Your task to perform on an android device: read, delete, or share a saved page in the chrome app Image 0: 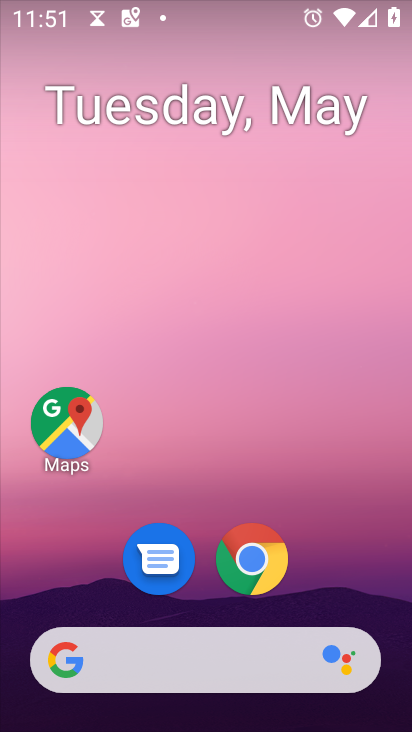
Step 0: drag from (308, 594) to (339, 22)
Your task to perform on an android device: read, delete, or share a saved page in the chrome app Image 1: 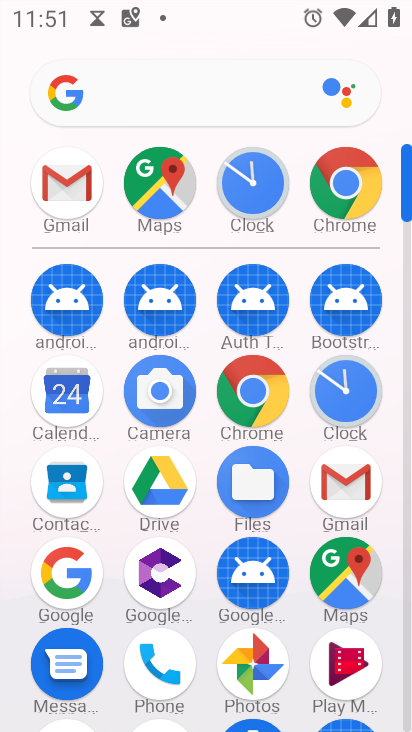
Step 1: click (350, 191)
Your task to perform on an android device: read, delete, or share a saved page in the chrome app Image 2: 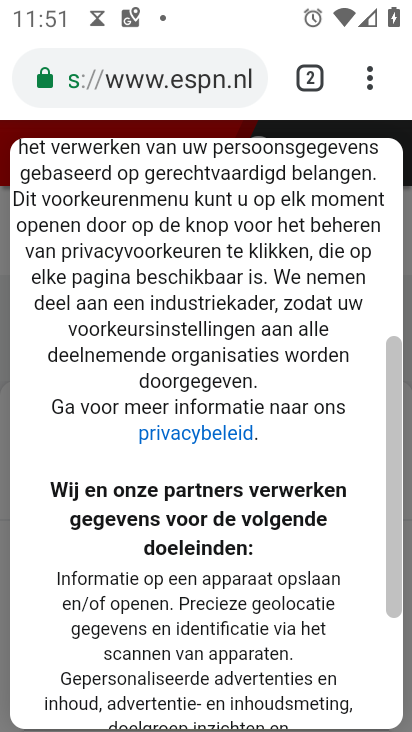
Step 2: task complete